Your task to perform on an android device: turn on showing notifications on the lock screen Image 0: 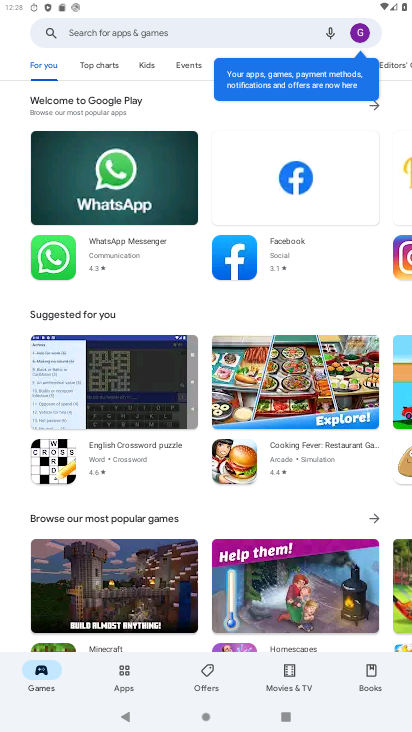
Step 0: press home button
Your task to perform on an android device: turn on showing notifications on the lock screen Image 1: 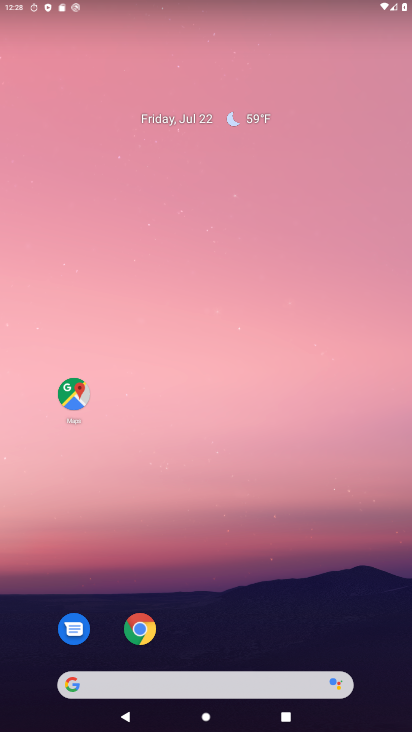
Step 1: drag from (248, 691) to (292, 64)
Your task to perform on an android device: turn on showing notifications on the lock screen Image 2: 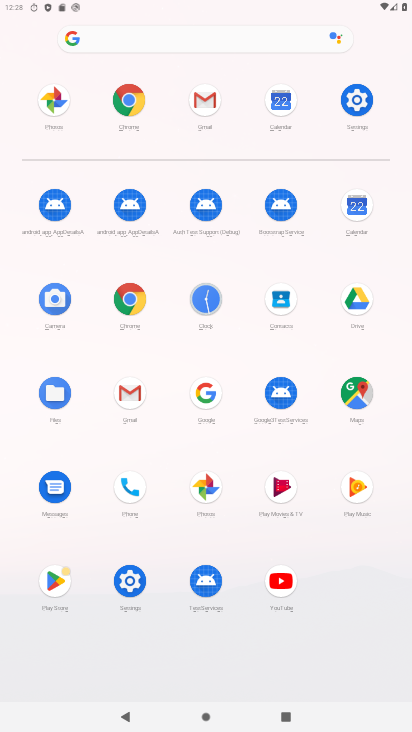
Step 2: click (362, 105)
Your task to perform on an android device: turn on showing notifications on the lock screen Image 3: 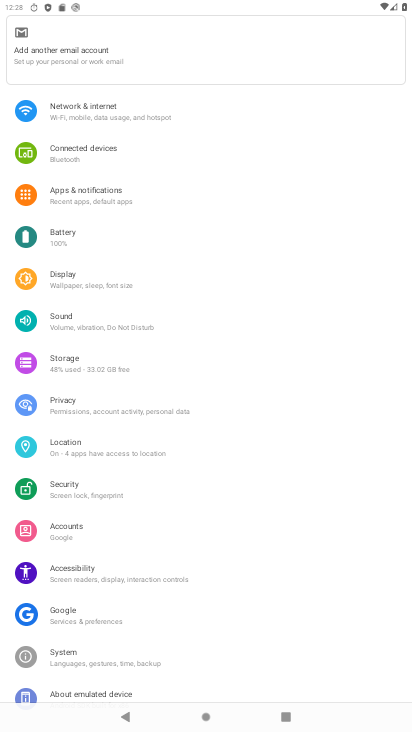
Step 3: click (113, 193)
Your task to perform on an android device: turn on showing notifications on the lock screen Image 4: 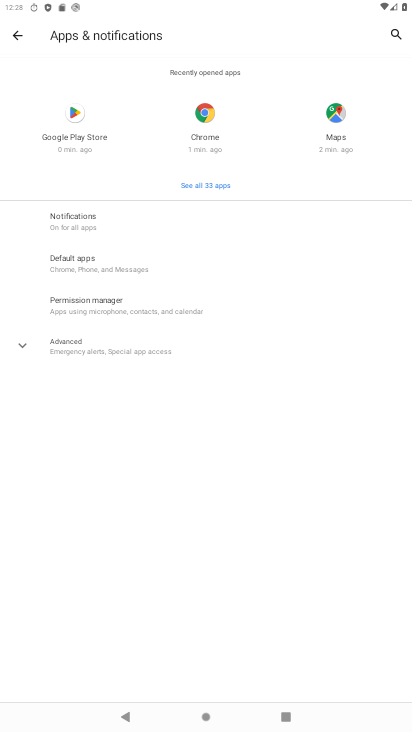
Step 4: click (97, 229)
Your task to perform on an android device: turn on showing notifications on the lock screen Image 5: 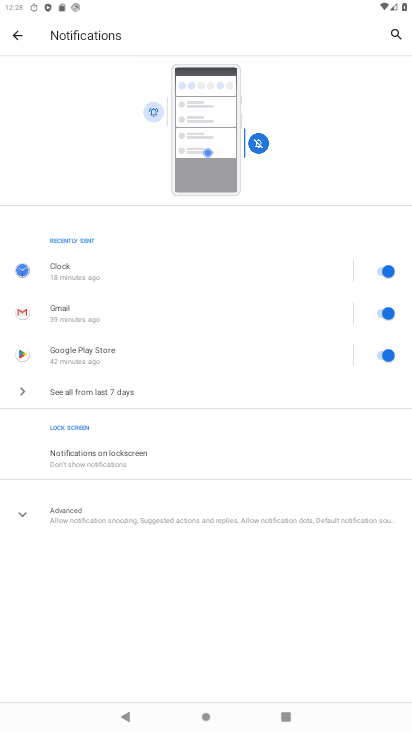
Step 5: click (143, 452)
Your task to perform on an android device: turn on showing notifications on the lock screen Image 6: 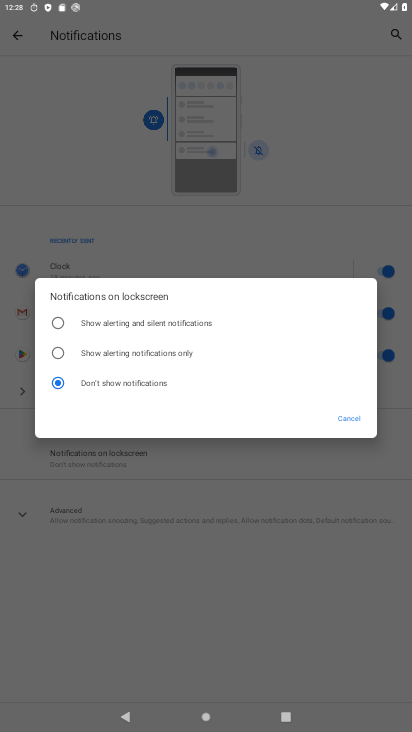
Step 6: click (145, 324)
Your task to perform on an android device: turn on showing notifications on the lock screen Image 7: 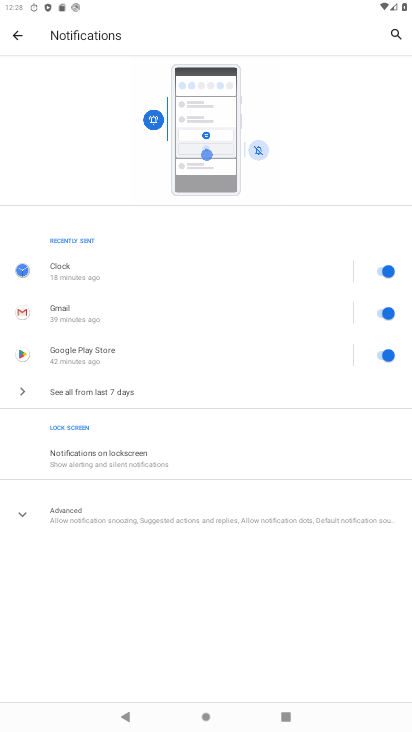
Step 7: task complete